Your task to perform on an android device: check google app version Image 0: 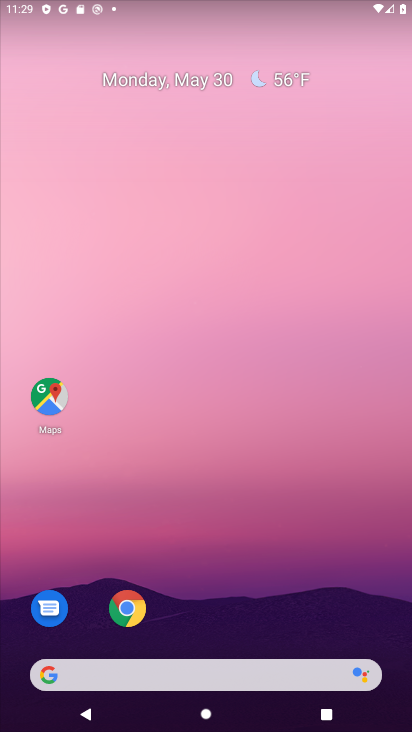
Step 0: drag from (248, 613) to (286, 49)
Your task to perform on an android device: check google app version Image 1: 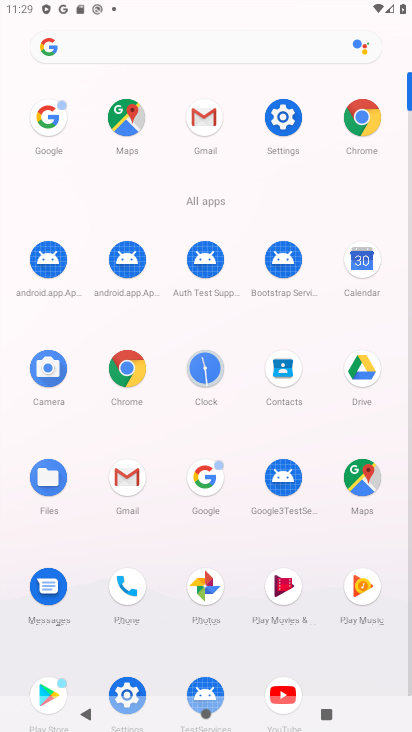
Step 1: click (210, 475)
Your task to perform on an android device: check google app version Image 2: 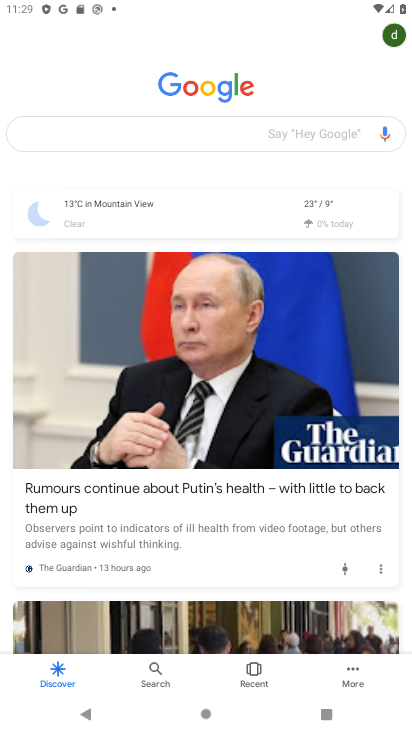
Step 2: click (350, 685)
Your task to perform on an android device: check google app version Image 3: 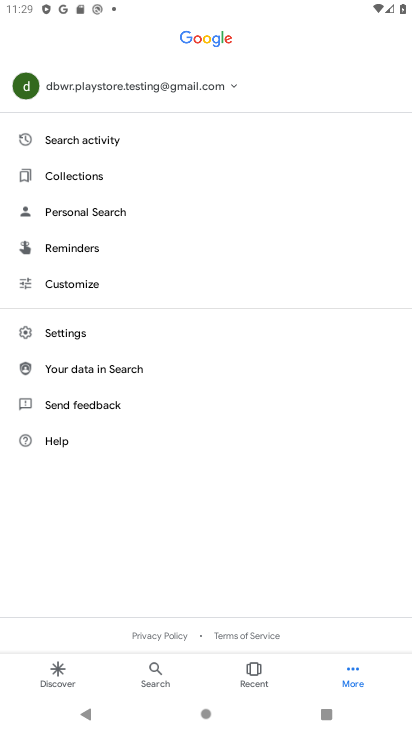
Step 3: click (75, 334)
Your task to perform on an android device: check google app version Image 4: 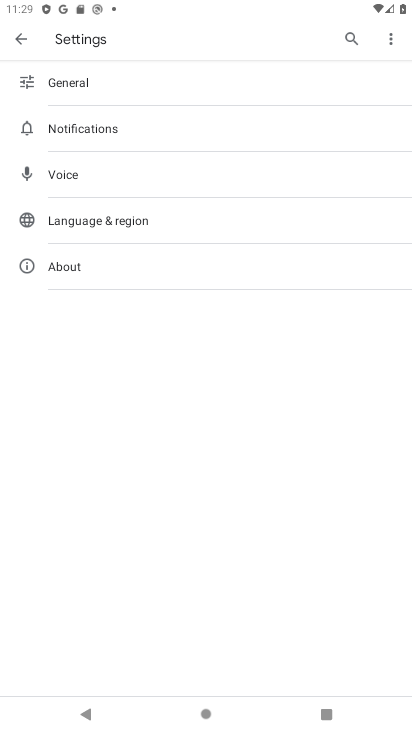
Step 4: click (64, 273)
Your task to perform on an android device: check google app version Image 5: 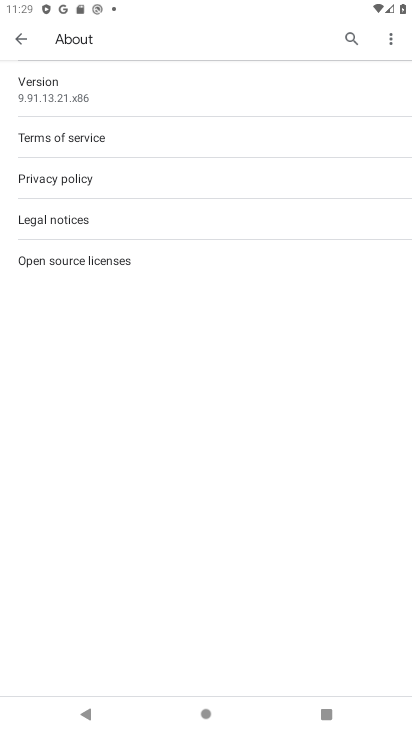
Step 5: click (98, 89)
Your task to perform on an android device: check google app version Image 6: 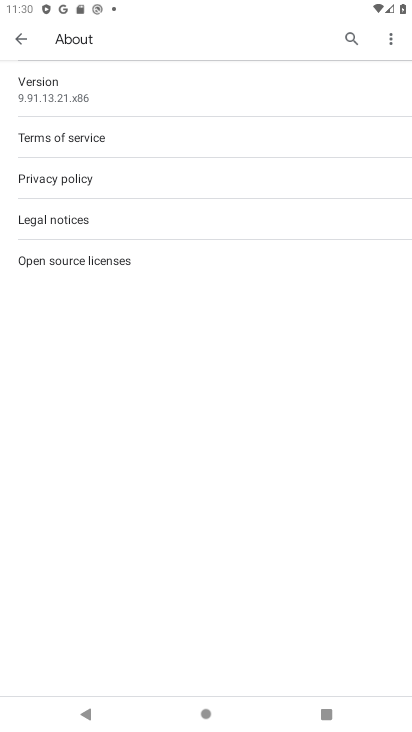
Step 6: task complete